Your task to perform on an android device: Open Youtube and go to "Your channel" Image 0: 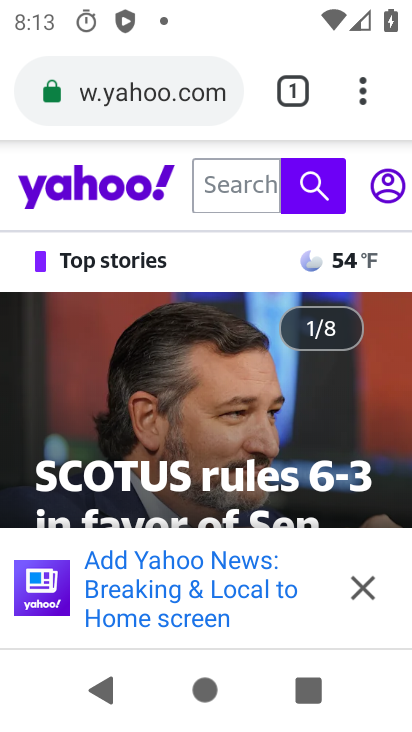
Step 0: press home button
Your task to perform on an android device: Open Youtube and go to "Your channel" Image 1: 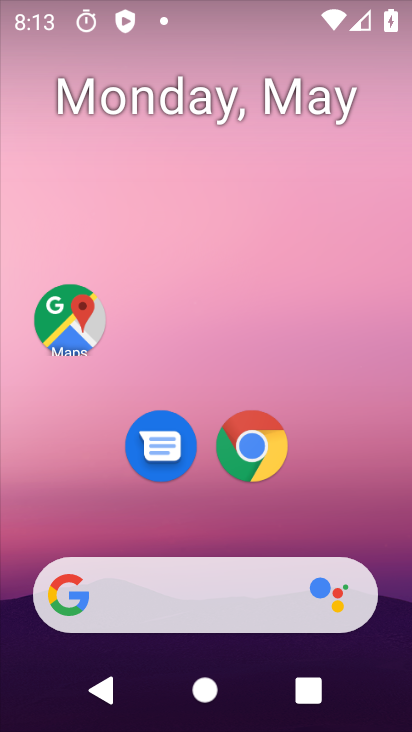
Step 1: drag from (338, 552) to (249, 6)
Your task to perform on an android device: Open Youtube and go to "Your channel" Image 2: 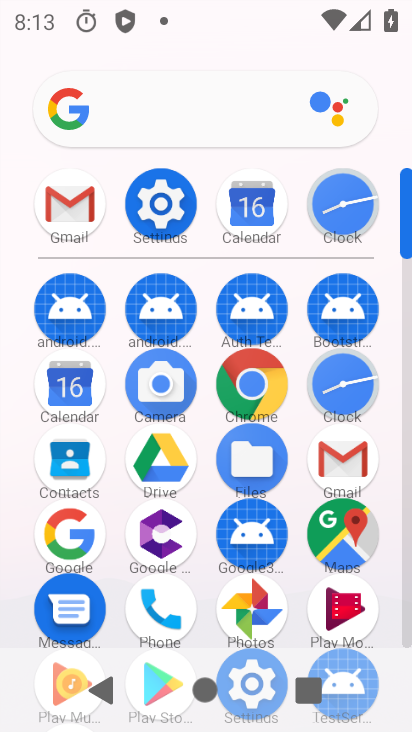
Step 2: drag from (408, 472) to (395, 356)
Your task to perform on an android device: Open Youtube and go to "Your channel" Image 3: 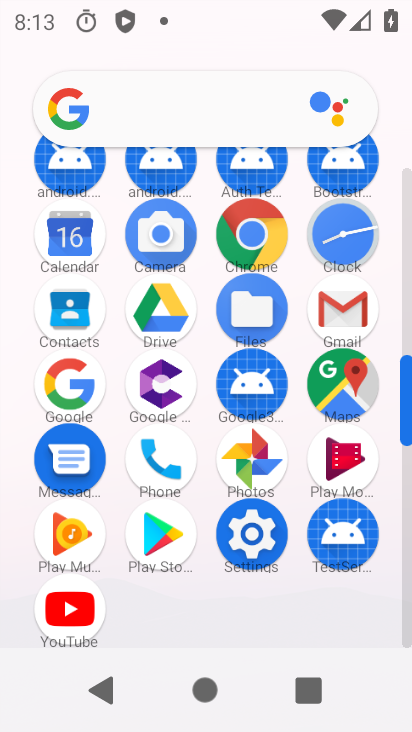
Step 3: click (87, 617)
Your task to perform on an android device: Open Youtube and go to "Your channel" Image 4: 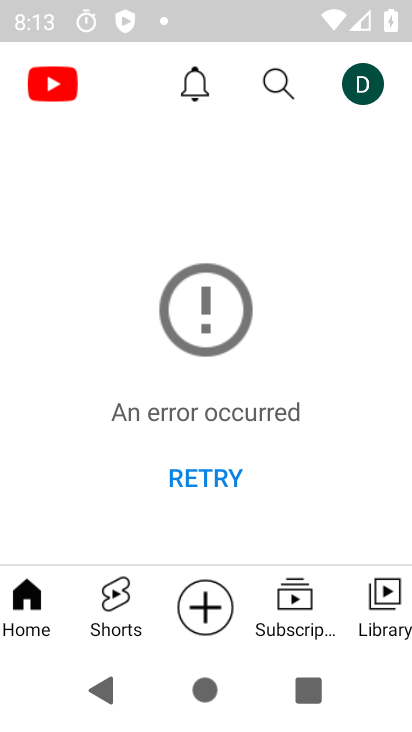
Step 4: click (360, 92)
Your task to perform on an android device: Open Youtube and go to "Your channel" Image 5: 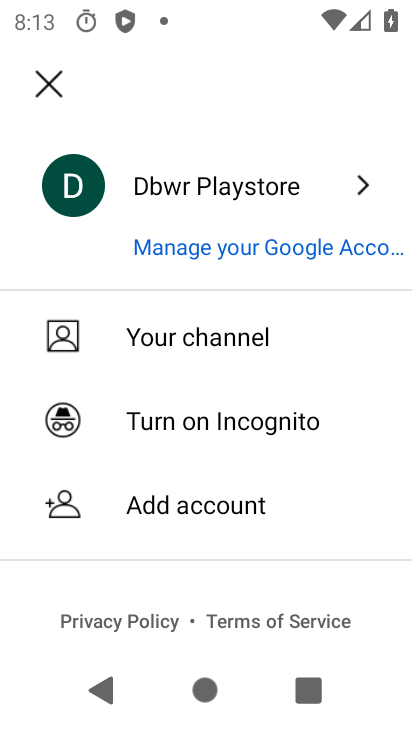
Step 5: click (204, 341)
Your task to perform on an android device: Open Youtube and go to "Your channel" Image 6: 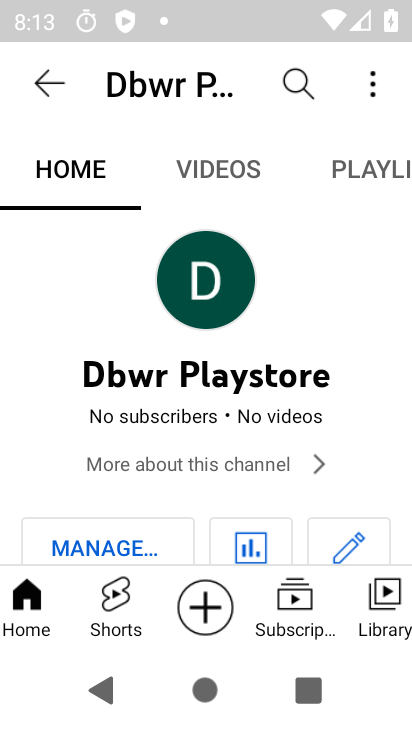
Step 6: task complete